Your task to perform on an android device: refresh tabs in the chrome app Image 0: 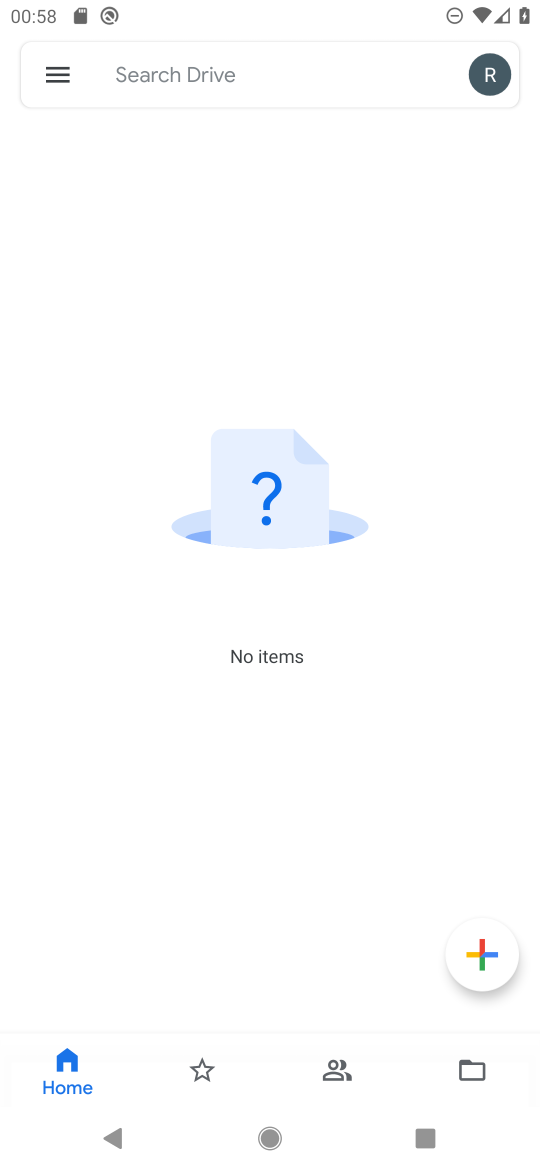
Step 0: press home button
Your task to perform on an android device: refresh tabs in the chrome app Image 1: 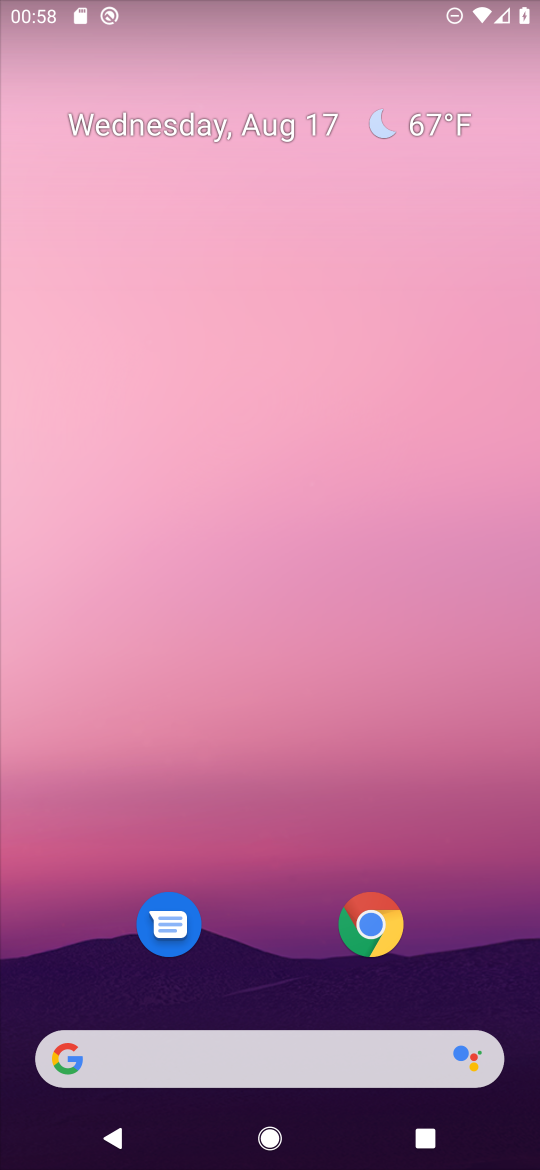
Step 1: click (373, 910)
Your task to perform on an android device: refresh tabs in the chrome app Image 2: 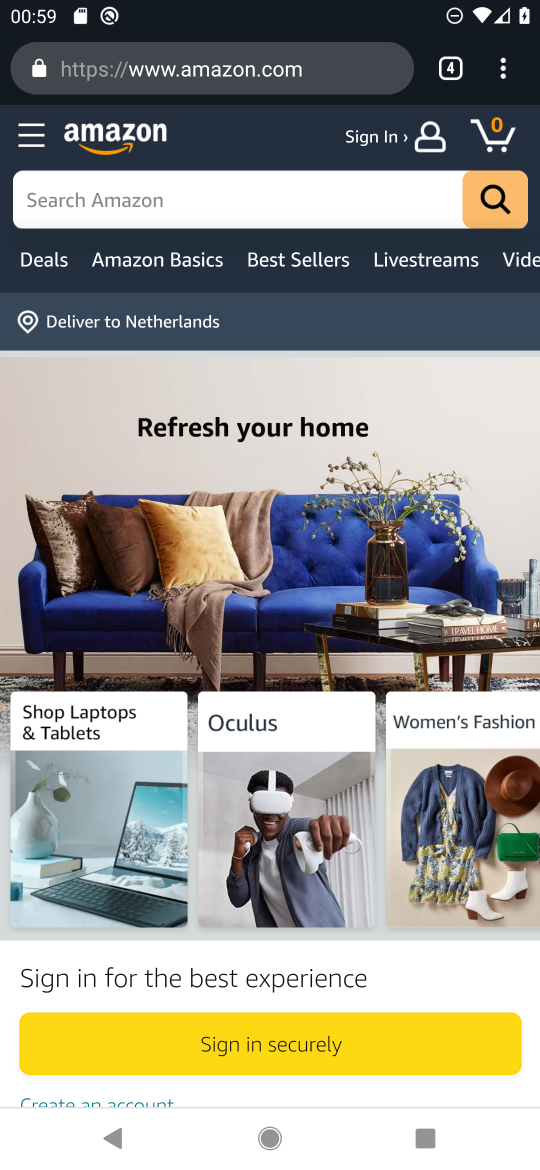
Step 2: click (519, 69)
Your task to perform on an android device: refresh tabs in the chrome app Image 3: 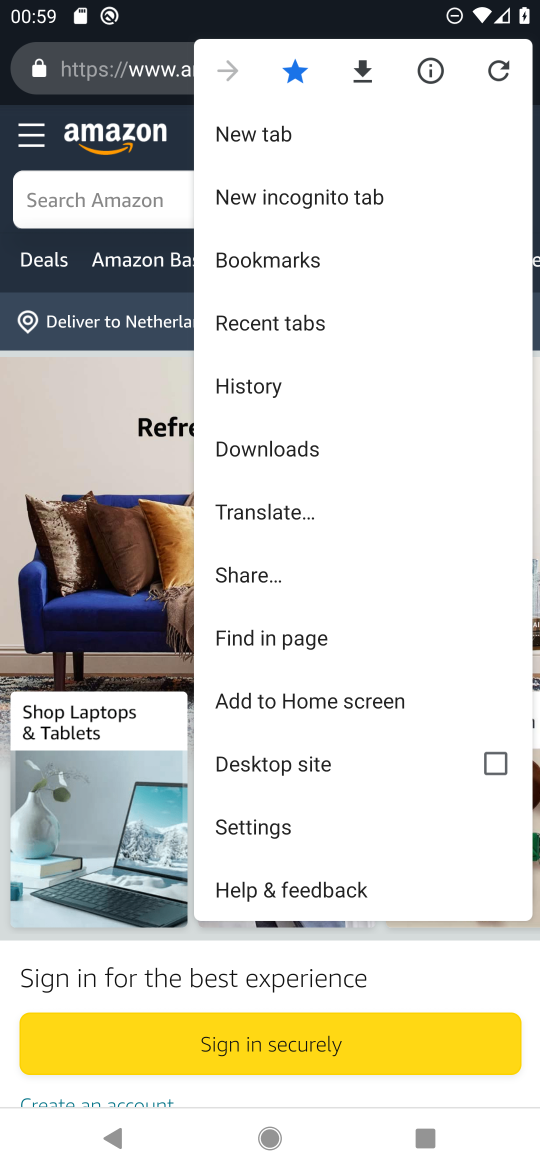
Step 3: click (502, 74)
Your task to perform on an android device: refresh tabs in the chrome app Image 4: 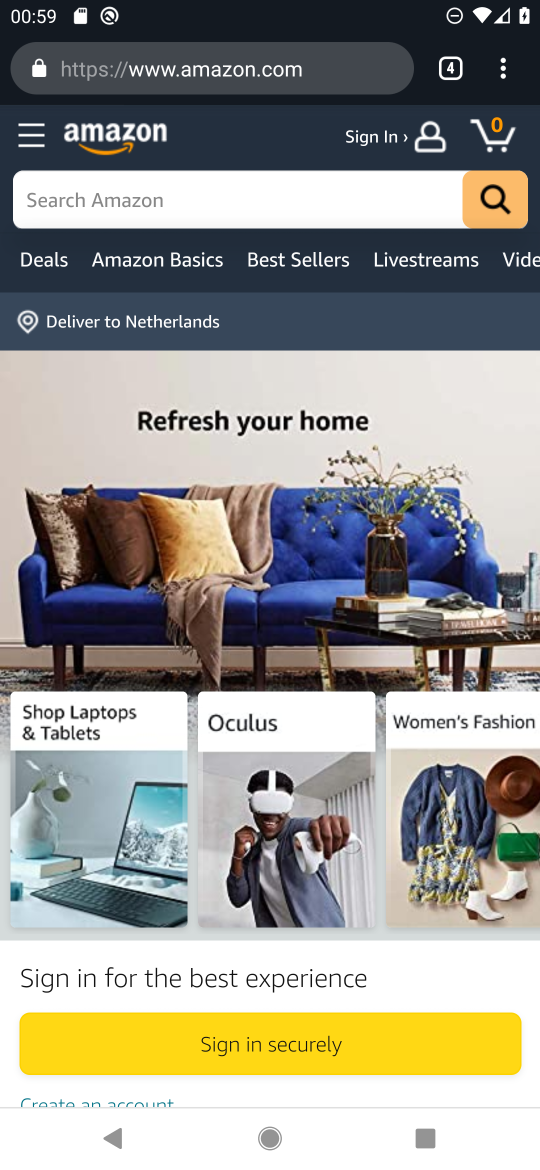
Step 4: task complete